Your task to perform on an android device: see tabs open on other devices in the chrome app Image 0: 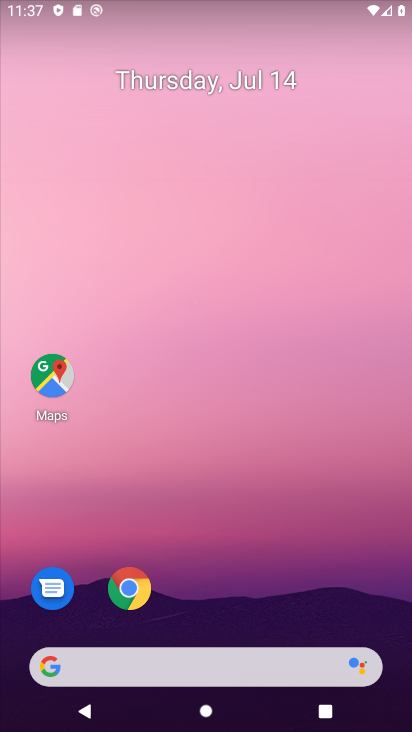
Step 0: click (138, 593)
Your task to perform on an android device: see tabs open on other devices in the chrome app Image 1: 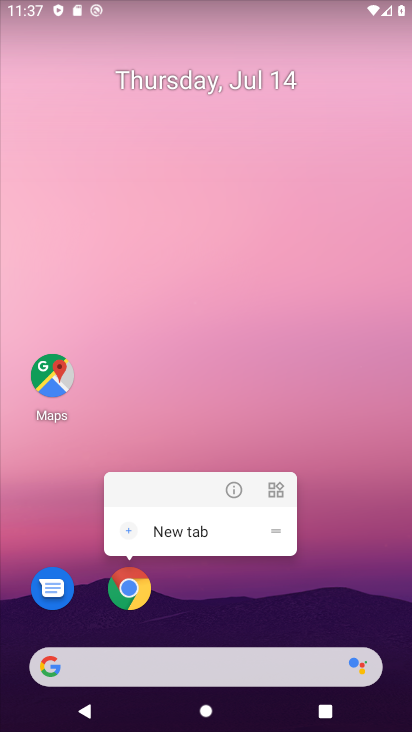
Step 1: click (138, 593)
Your task to perform on an android device: see tabs open on other devices in the chrome app Image 2: 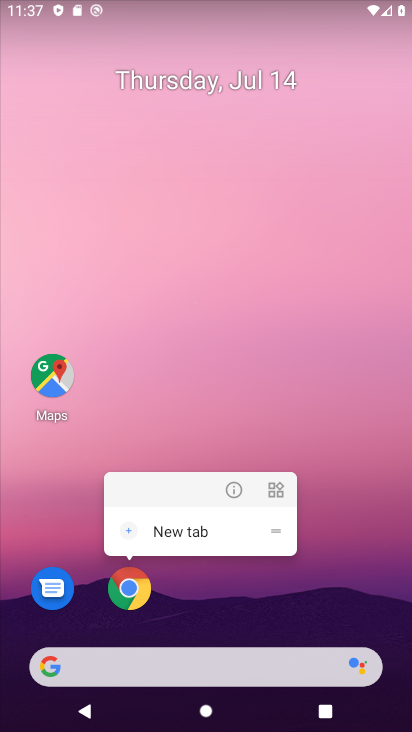
Step 2: click (138, 593)
Your task to perform on an android device: see tabs open on other devices in the chrome app Image 3: 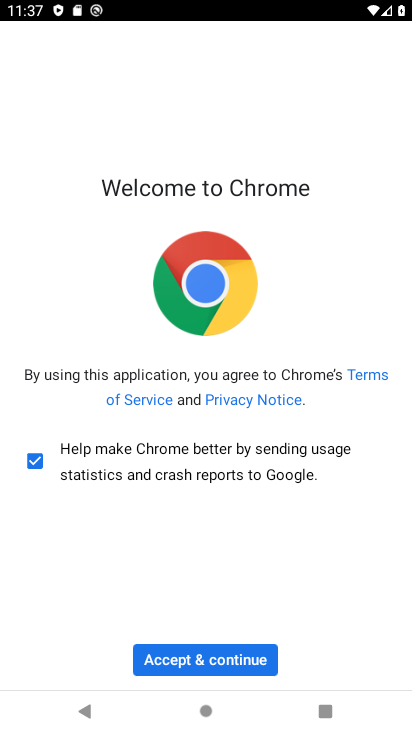
Step 3: click (207, 682)
Your task to perform on an android device: see tabs open on other devices in the chrome app Image 4: 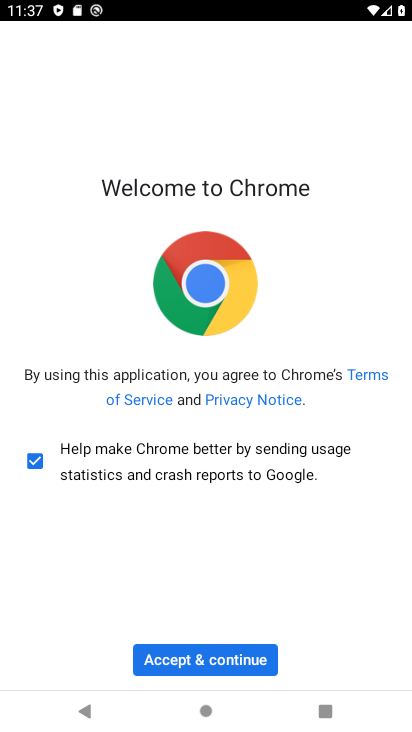
Step 4: click (203, 661)
Your task to perform on an android device: see tabs open on other devices in the chrome app Image 5: 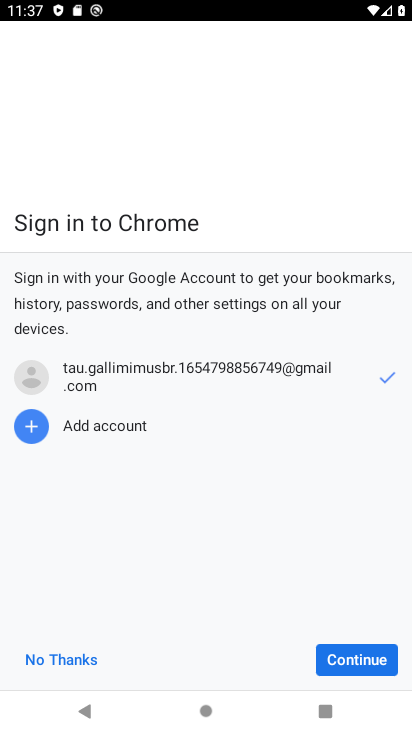
Step 5: click (357, 656)
Your task to perform on an android device: see tabs open on other devices in the chrome app Image 6: 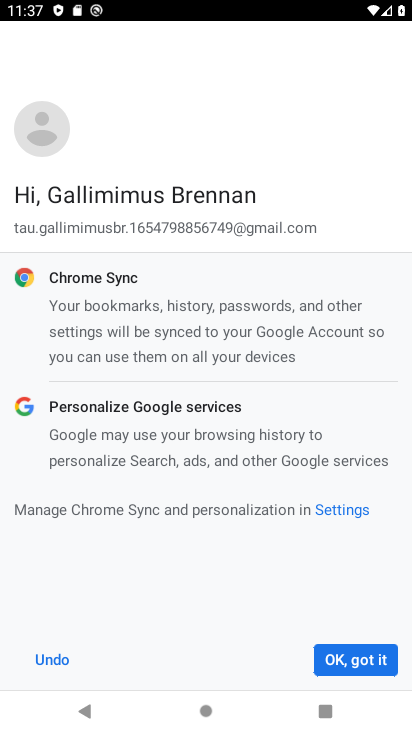
Step 6: click (357, 656)
Your task to perform on an android device: see tabs open on other devices in the chrome app Image 7: 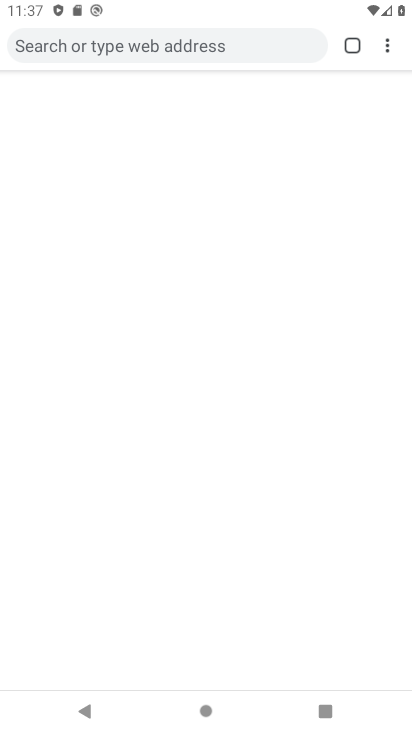
Step 7: click (397, 38)
Your task to perform on an android device: see tabs open on other devices in the chrome app Image 8: 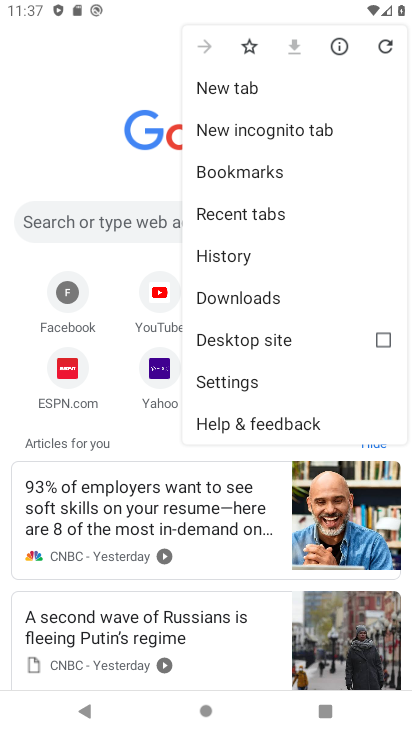
Step 8: click (272, 210)
Your task to perform on an android device: see tabs open on other devices in the chrome app Image 9: 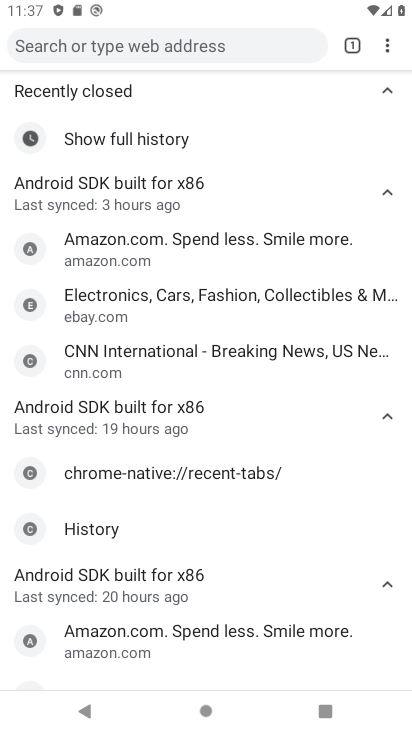
Step 9: task complete